Your task to perform on an android device: turn on improve location accuracy Image 0: 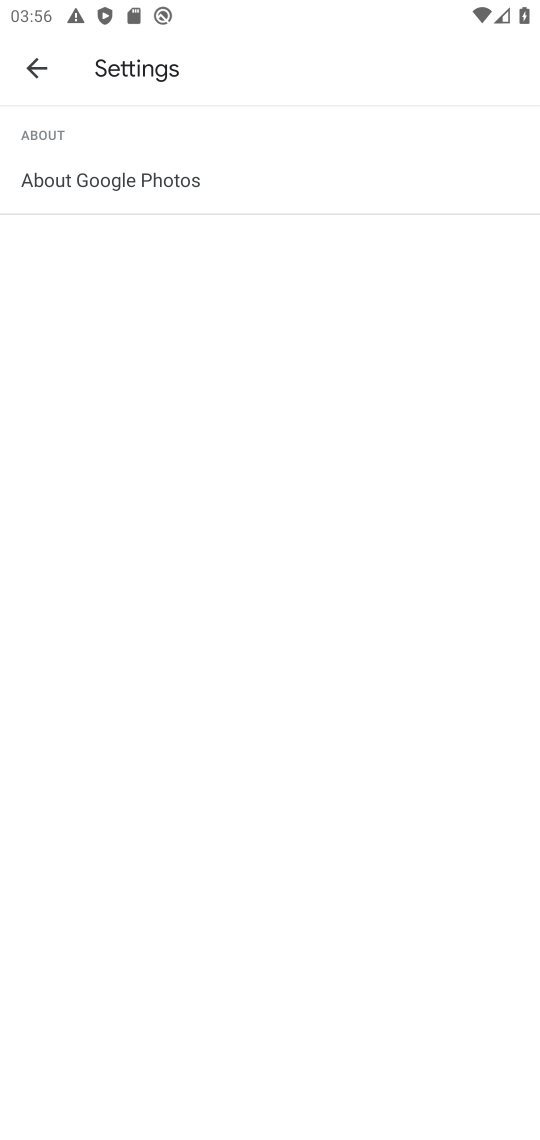
Step 0: press home button
Your task to perform on an android device: turn on improve location accuracy Image 1: 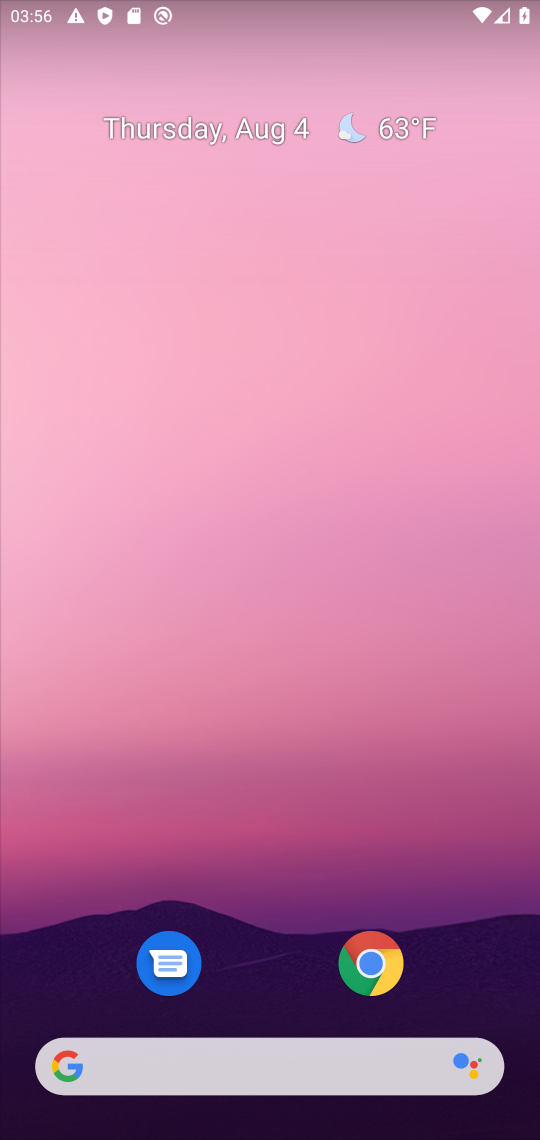
Step 1: drag from (296, 974) to (334, 8)
Your task to perform on an android device: turn on improve location accuracy Image 2: 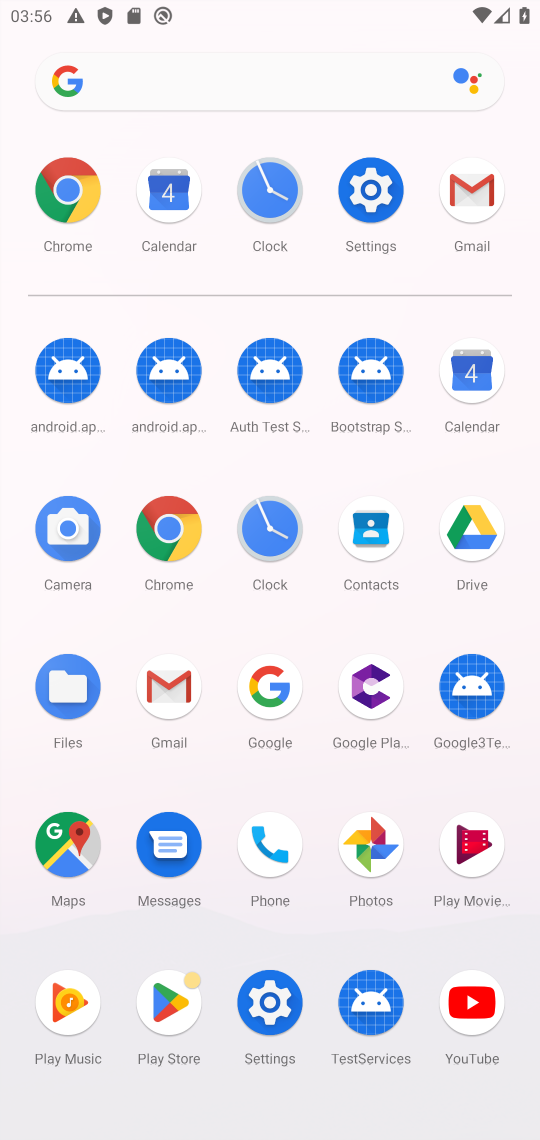
Step 2: click (365, 205)
Your task to perform on an android device: turn on improve location accuracy Image 3: 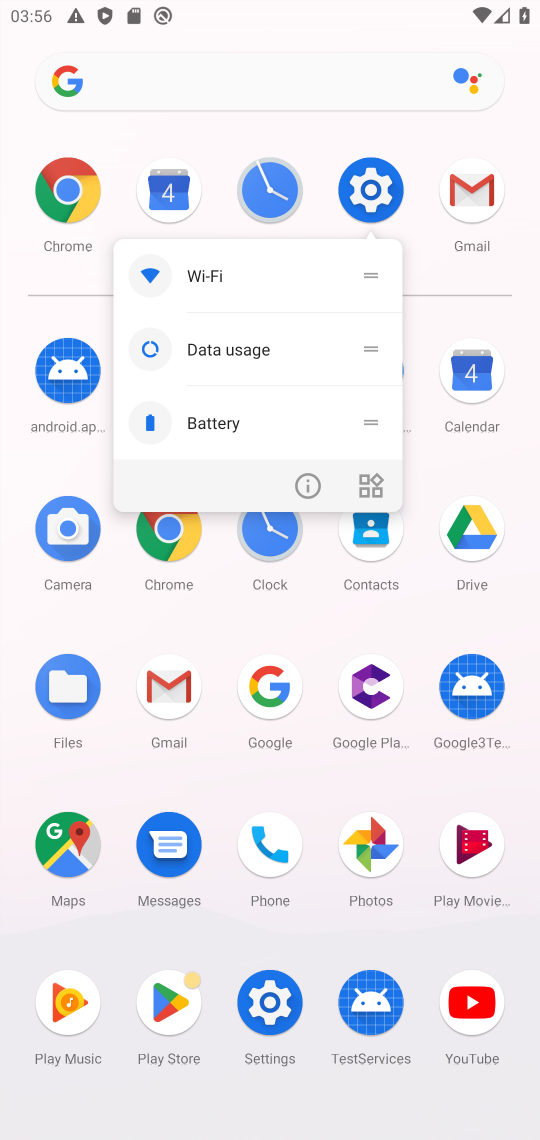
Step 3: click (365, 205)
Your task to perform on an android device: turn on improve location accuracy Image 4: 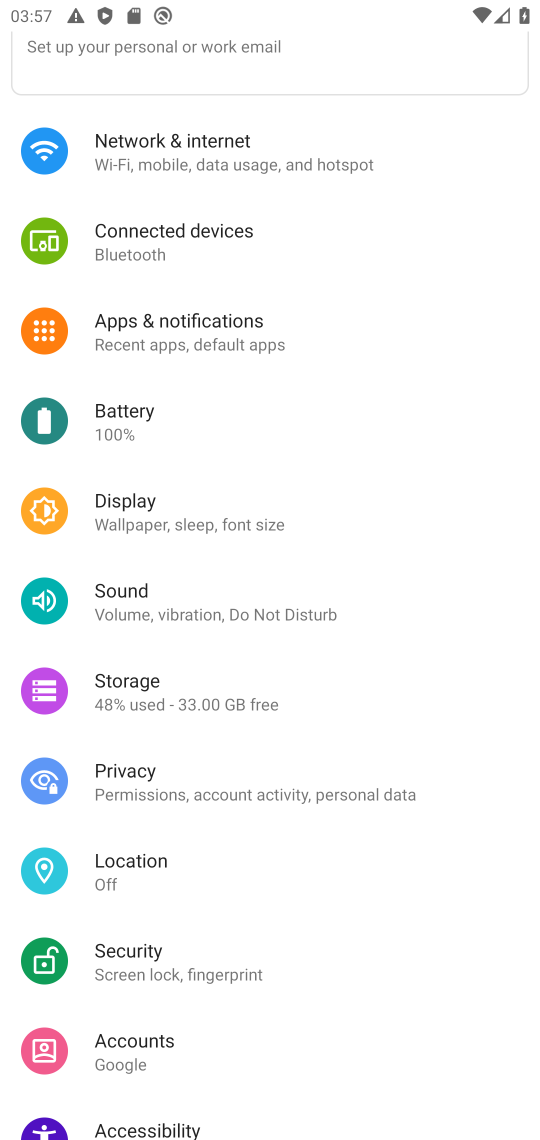
Step 4: click (114, 882)
Your task to perform on an android device: turn on improve location accuracy Image 5: 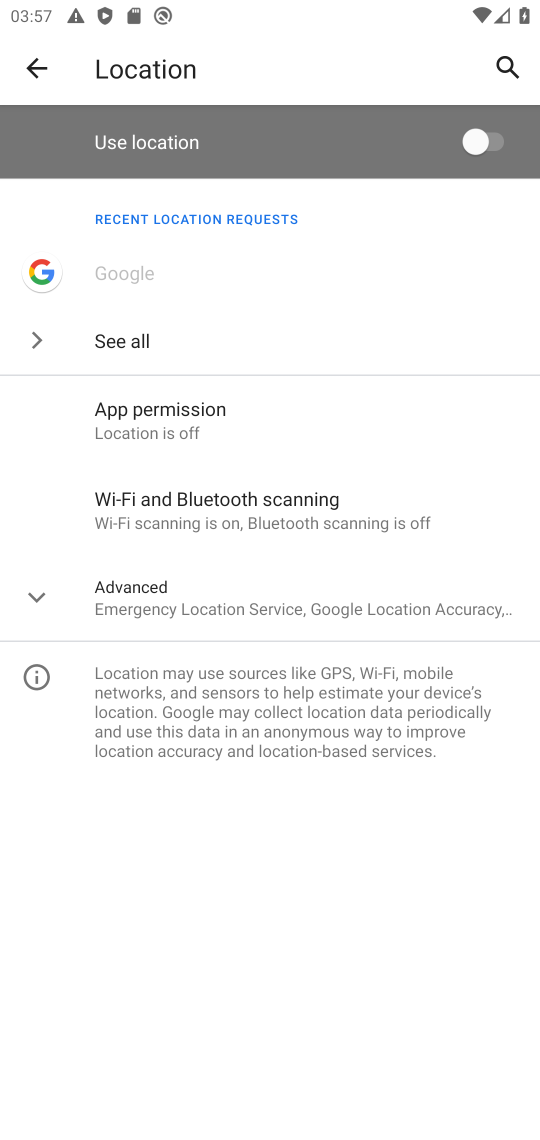
Step 5: click (46, 605)
Your task to perform on an android device: turn on improve location accuracy Image 6: 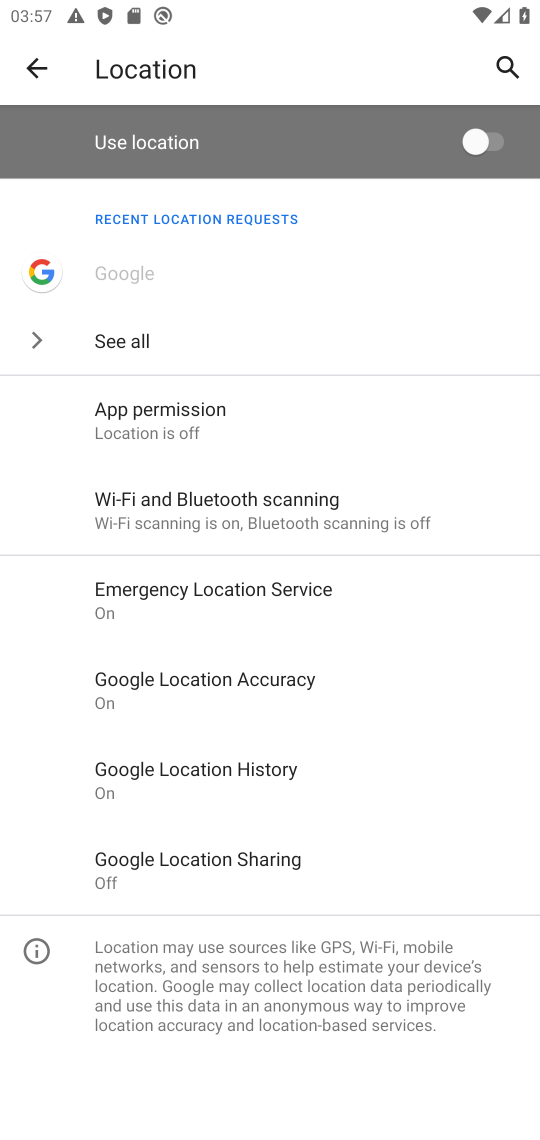
Step 6: click (144, 669)
Your task to perform on an android device: turn on improve location accuracy Image 7: 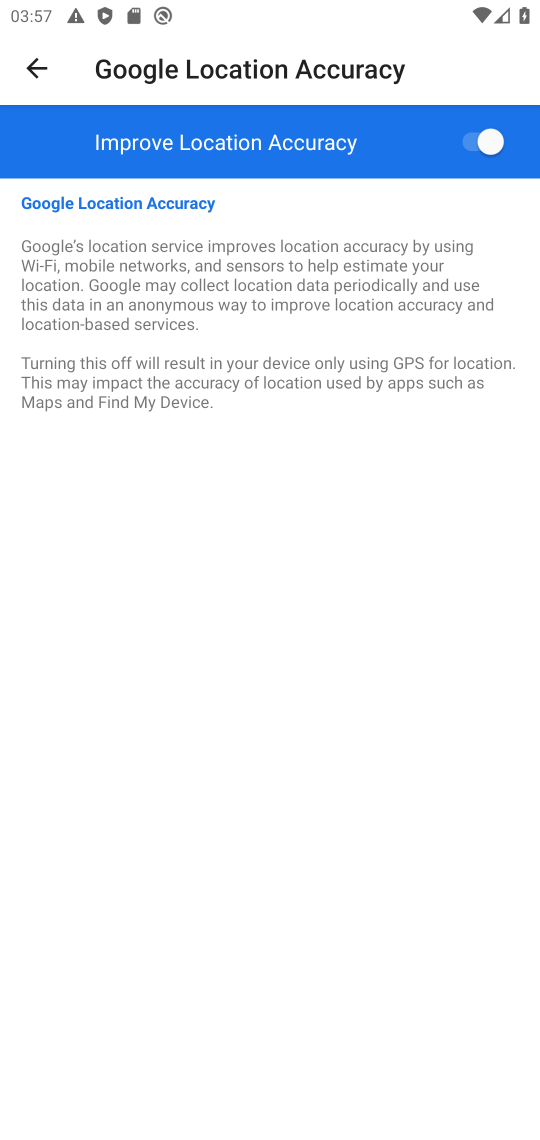
Step 7: task complete